Your task to perform on an android device: Add "bose soundlink mini" to the cart on newegg Image 0: 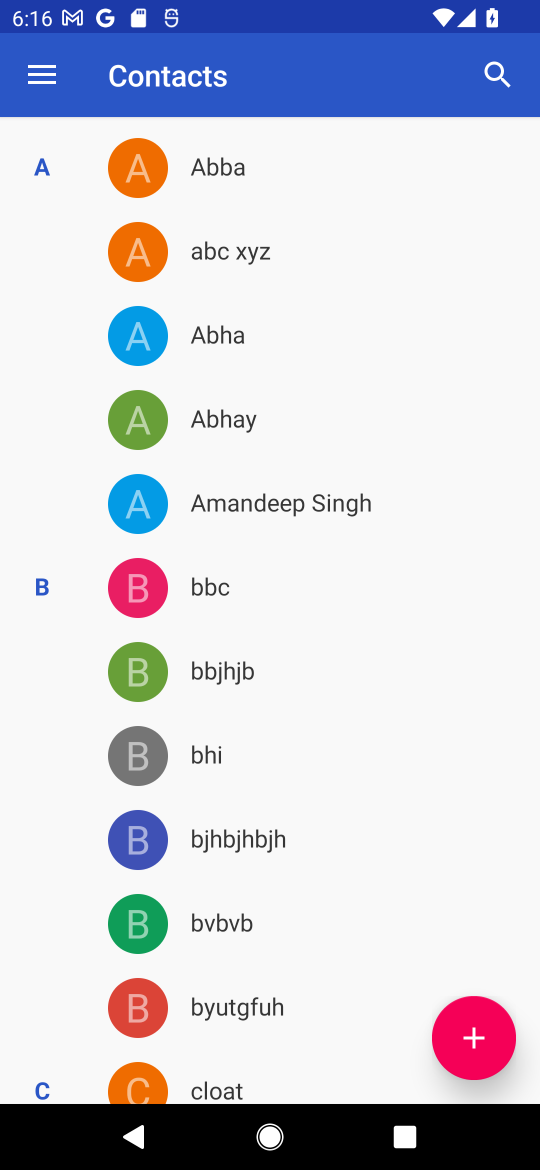
Step 0: press home button
Your task to perform on an android device: Add "bose soundlink mini" to the cart on newegg Image 1: 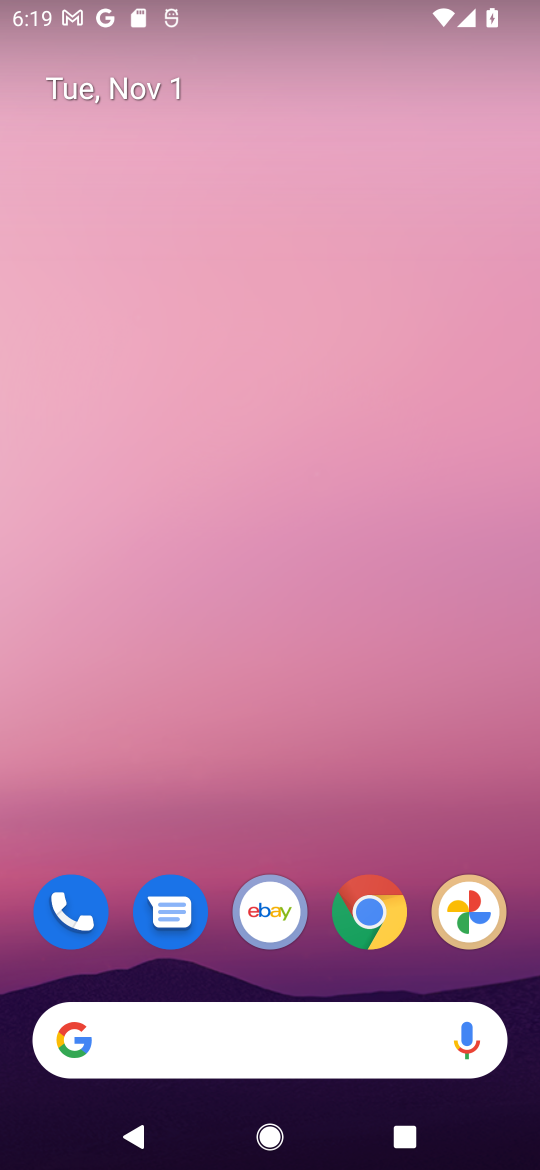
Step 1: click (79, 1039)
Your task to perform on an android device: Add "bose soundlink mini" to the cart on newegg Image 2: 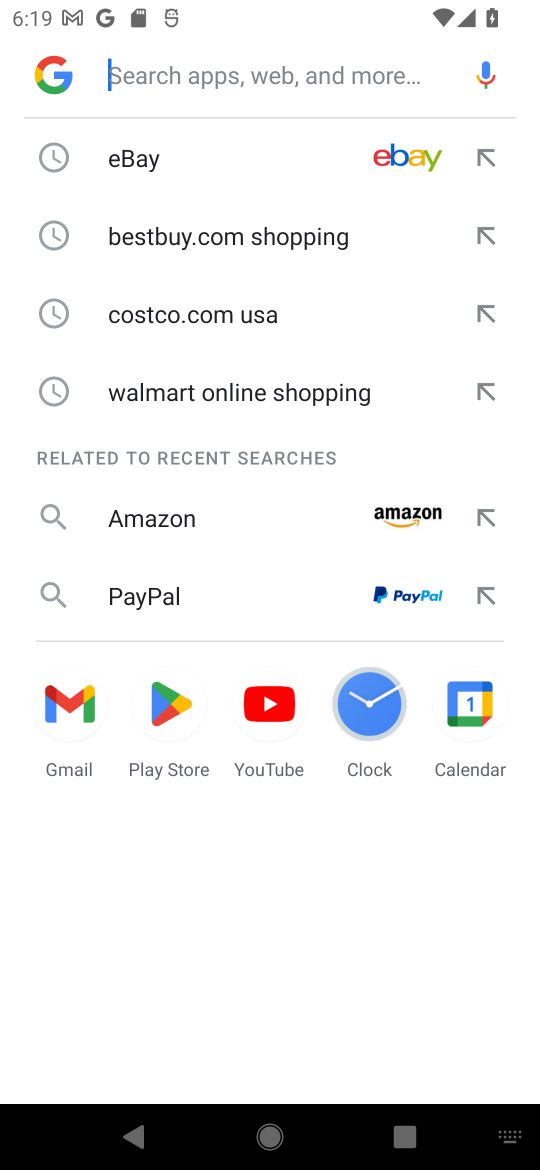
Step 2: type " newegg"
Your task to perform on an android device: Add "bose soundlink mini" to the cart on newegg Image 3: 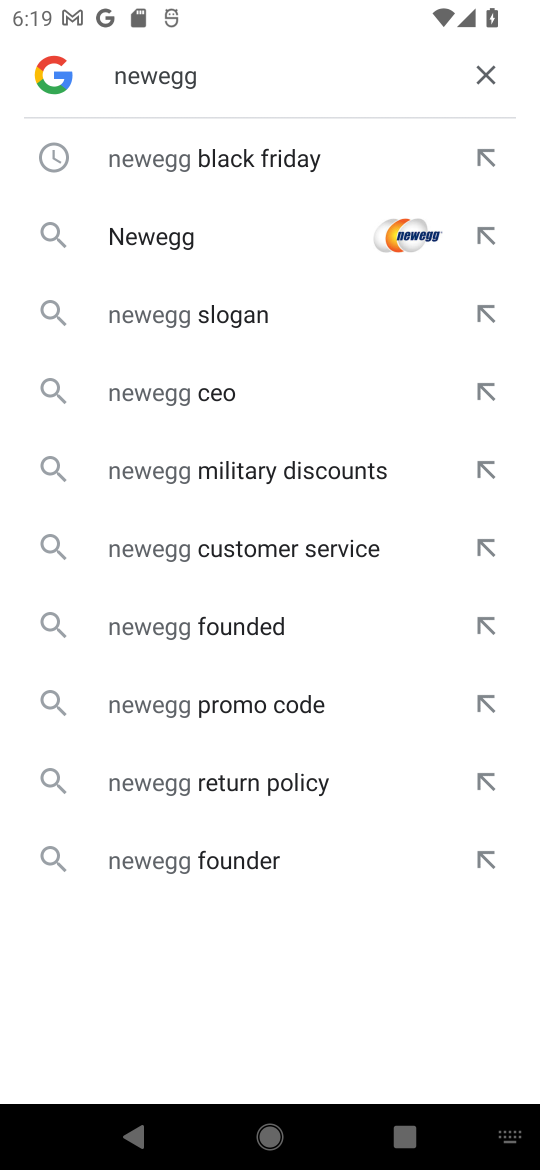
Step 3: click (167, 234)
Your task to perform on an android device: Add "bose soundlink mini" to the cart on newegg Image 4: 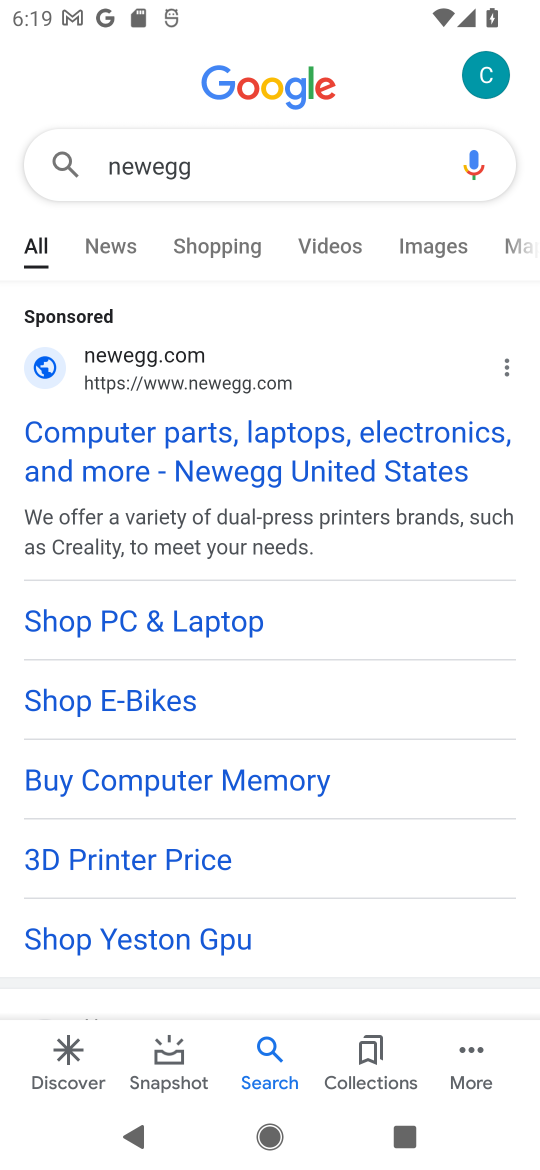
Step 4: click (320, 443)
Your task to perform on an android device: Add "bose soundlink mini" to the cart on newegg Image 5: 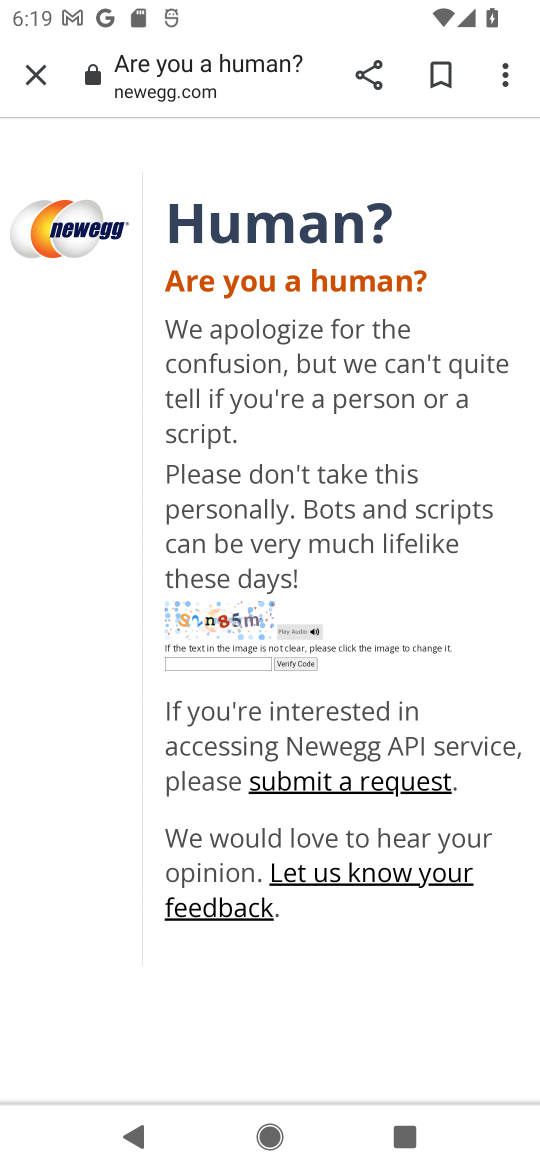
Step 5: task complete